Your task to perform on an android device: Open calendar and show me the first week of next month Image 0: 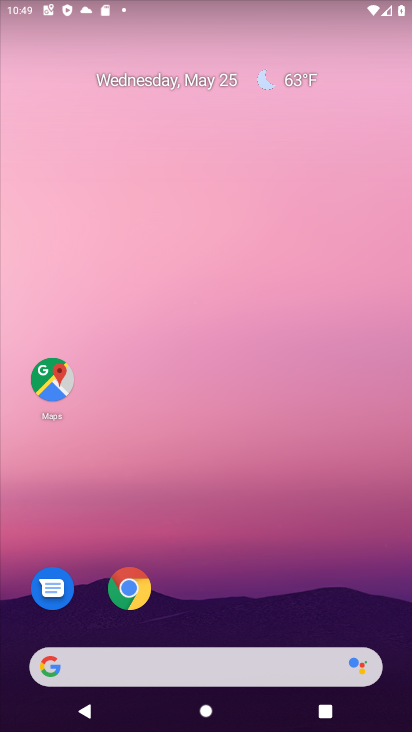
Step 0: drag from (299, 615) to (409, 194)
Your task to perform on an android device: Open calendar and show me the first week of next month Image 1: 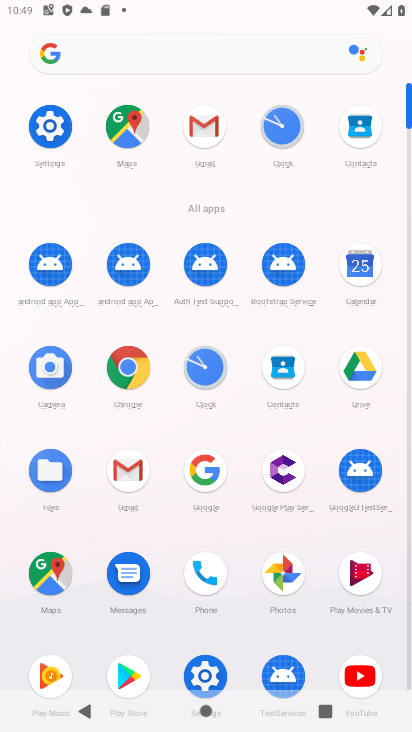
Step 1: click (362, 256)
Your task to perform on an android device: Open calendar and show me the first week of next month Image 2: 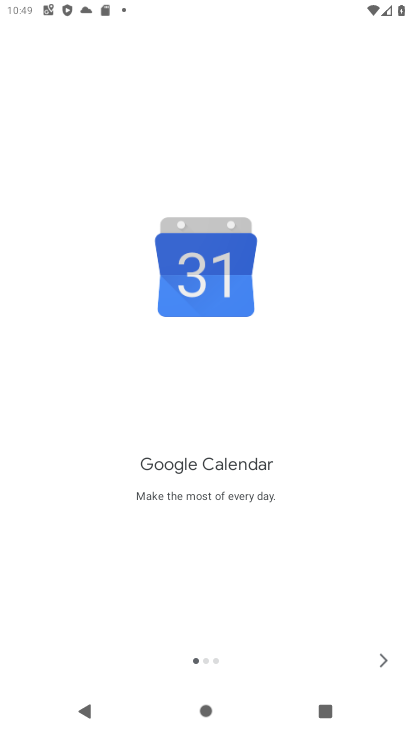
Step 2: click (387, 665)
Your task to perform on an android device: Open calendar and show me the first week of next month Image 3: 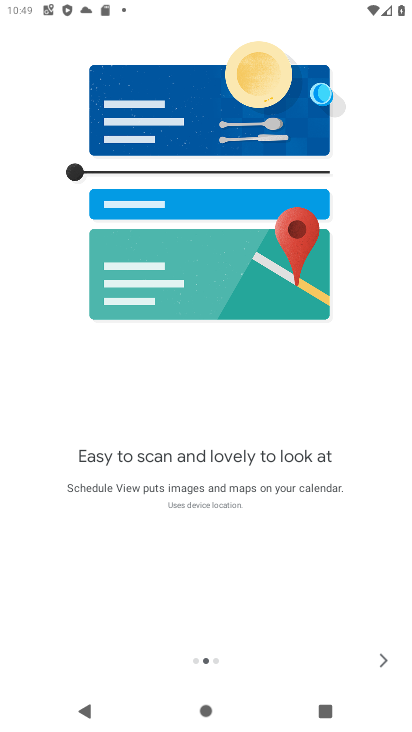
Step 3: click (387, 665)
Your task to perform on an android device: Open calendar and show me the first week of next month Image 4: 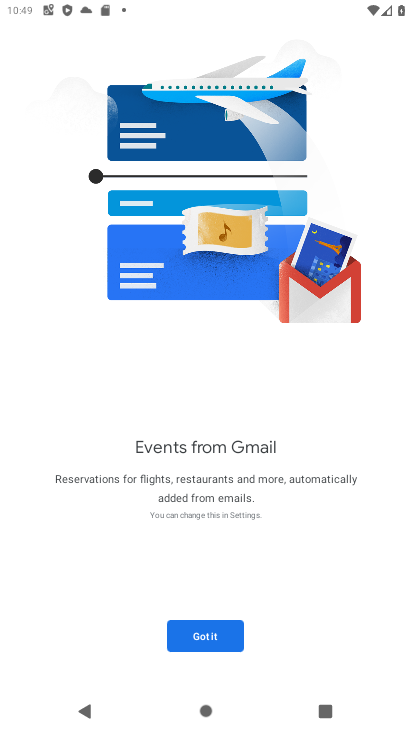
Step 4: click (211, 637)
Your task to perform on an android device: Open calendar and show me the first week of next month Image 5: 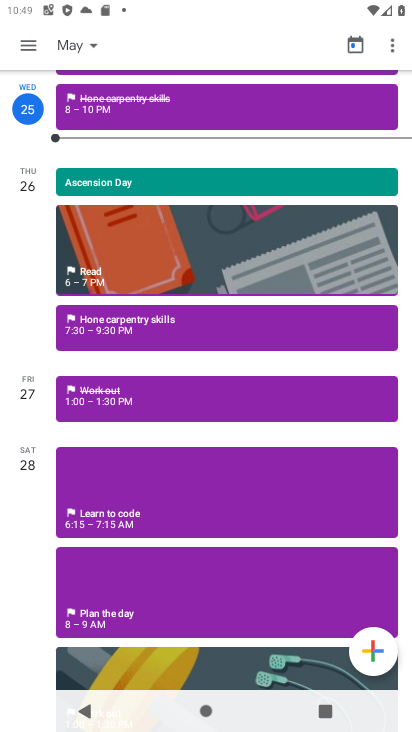
Step 5: click (22, 44)
Your task to perform on an android device: Open calendar and show me the first week of next month Image 6: 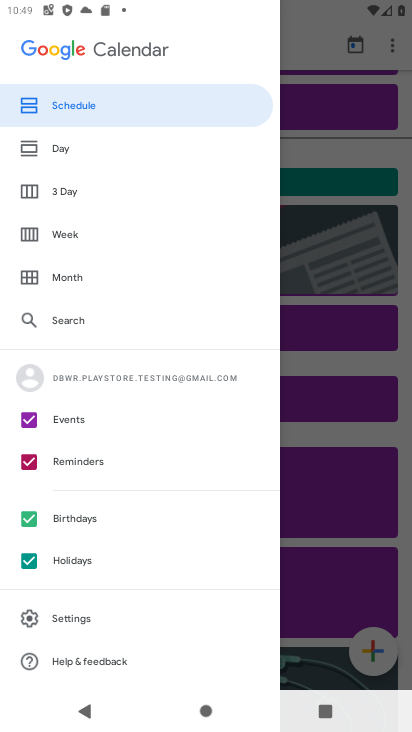
Step 6: click (61, 238)
Your task to perform on an android device: Open calendar and show me the first week of next month Image 7: 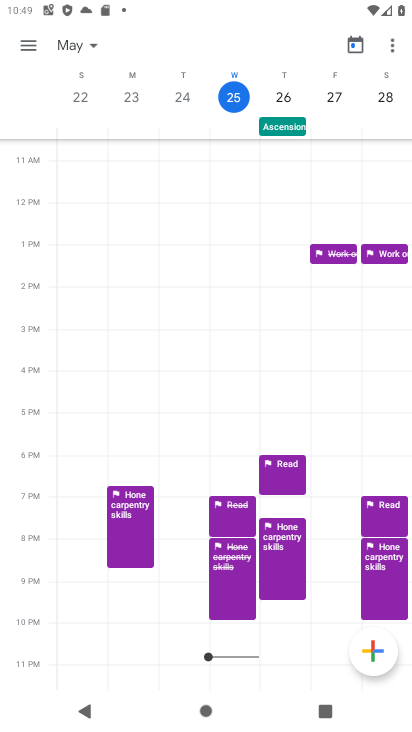
Step 7: click (68, 40)
Your task to perform on an android device: Open calendar and show me the first week of next month Image 8: 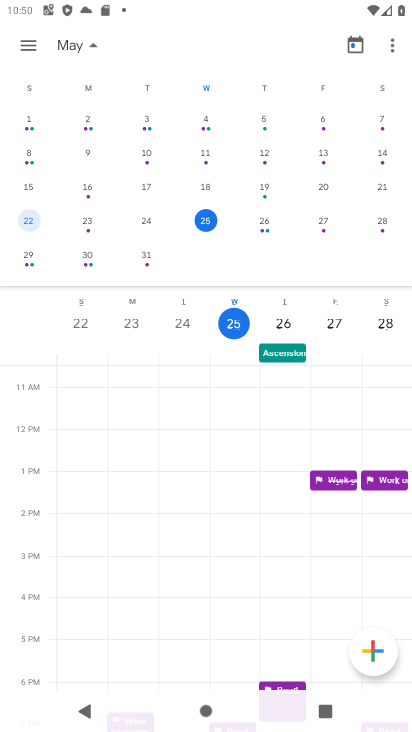
Step 8: drag from (393, 237) to (0, 185)
Your task to perform on an android device: Open calendar and show me the first week of next month Image 9: 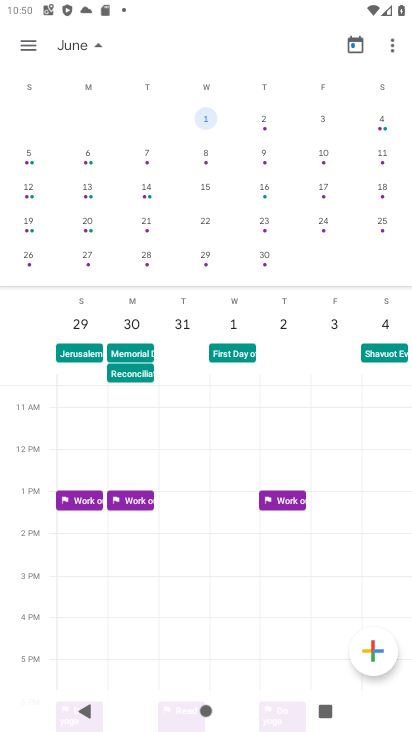
Step 9: click (73, 150)
Your task to perform on an android device: Open calendar and show me the first week of next month Image 10: 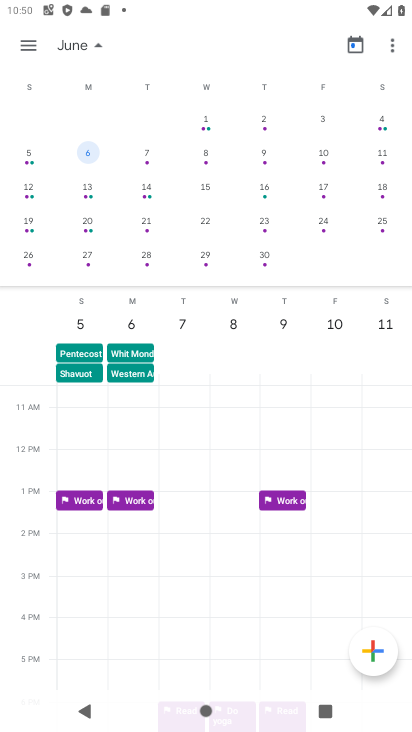
Step 10: task complete